Your task to perform on an android device: change the clock display to analog Image 0: 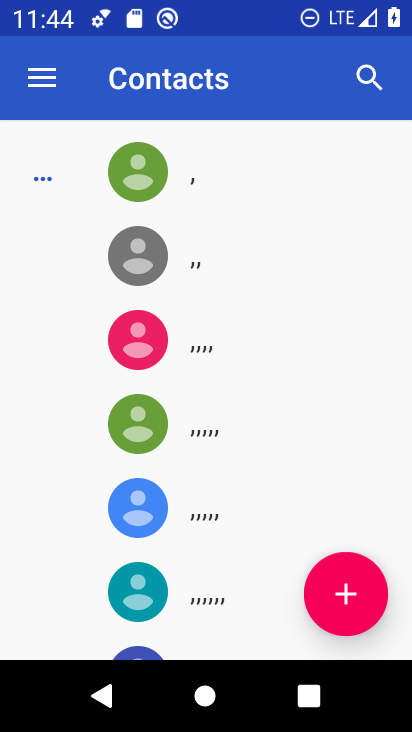
Step 0: press home button
Your task to perform on an android device: change the clock display to analog Image 1: 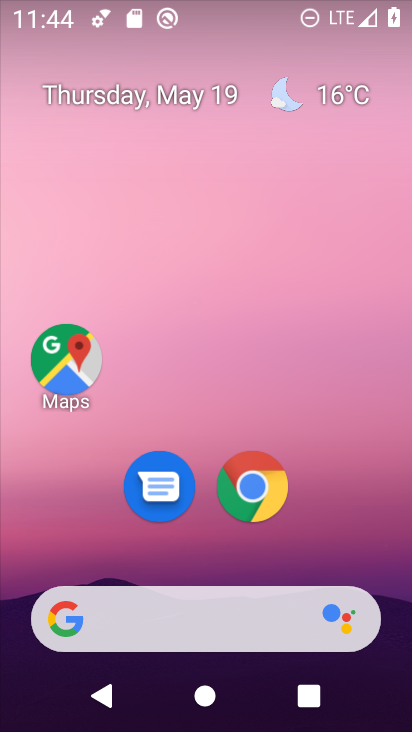
Step 1: drag from (353, 502) to (345, 152)
Your task to perform on an android device: change the clock display to analog Image 2: 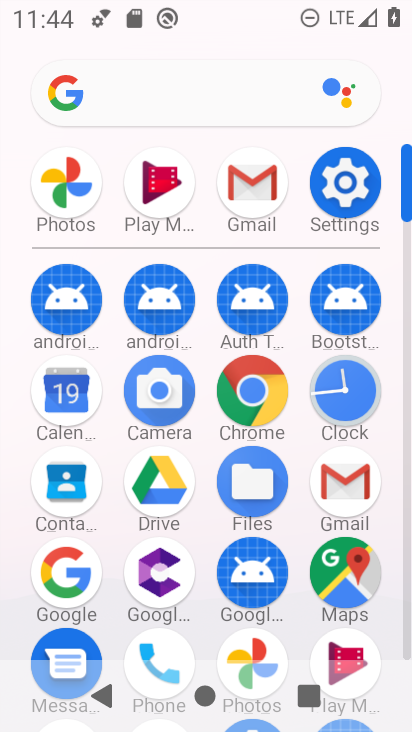
Step 2: click (345, 387)
Your task to perform on an android device: change the clock display to analog Image 3: 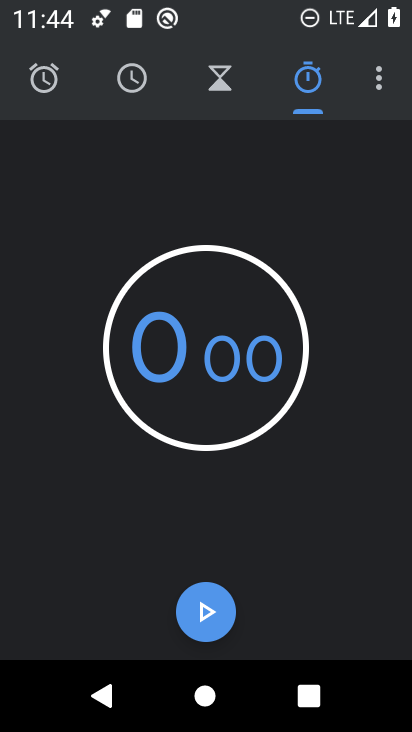
Step 3: click (364, 91)
Your task to perform on an android device: change the clock display to analog Image 4: 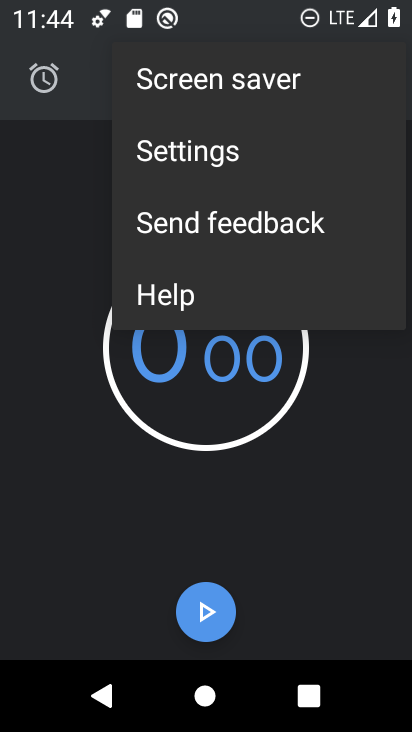
Step 4: click (308, 154)
Your task to perform on an android device: change the clock display to analog Image 5: 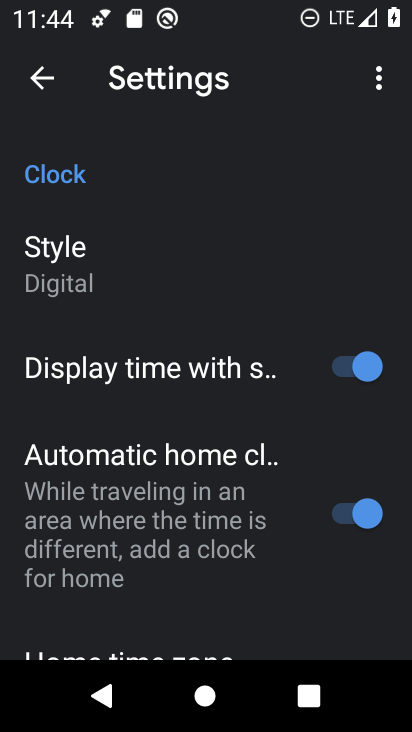
Step 5: click (133, 319)
Your task to perform on an android device: change the clock display to analog Image 6: 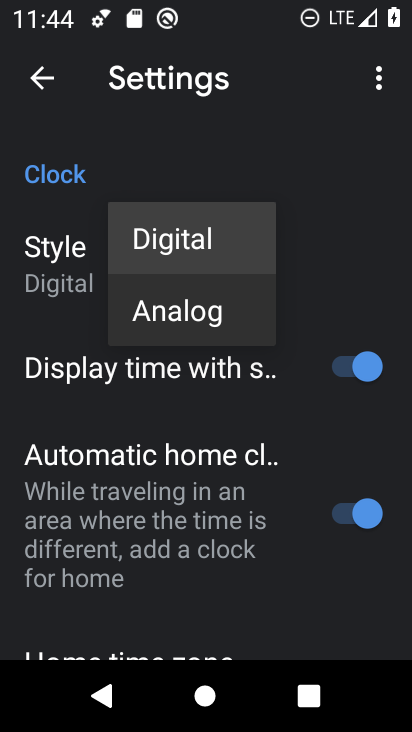
Step 6: click (157, 324)
Your task to perform on an android device: change the clock display to analog Image 7: 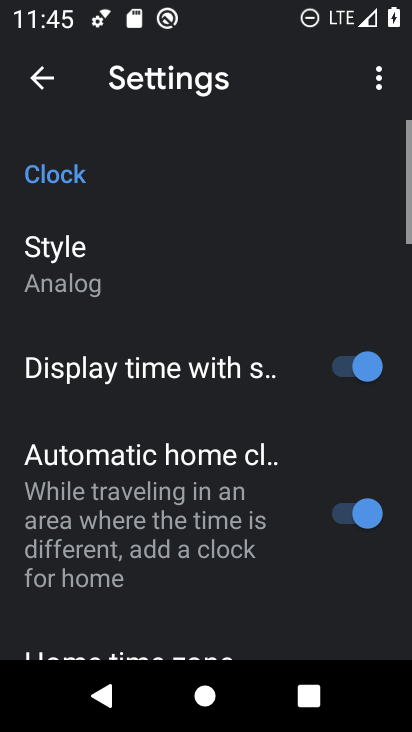
Step 7: task complete